Your task to perform on an android device: turn on airplane mode Image 0: 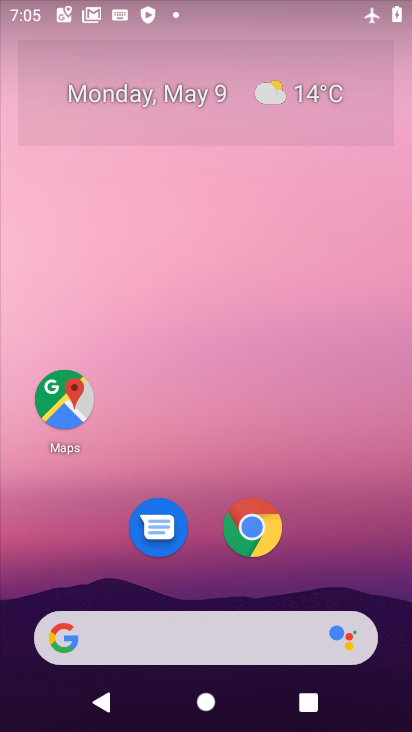
Step 0: drag from (354, 523) to (247, 42)
Your task to perform on an android device: turn on airplane mode Image 1: 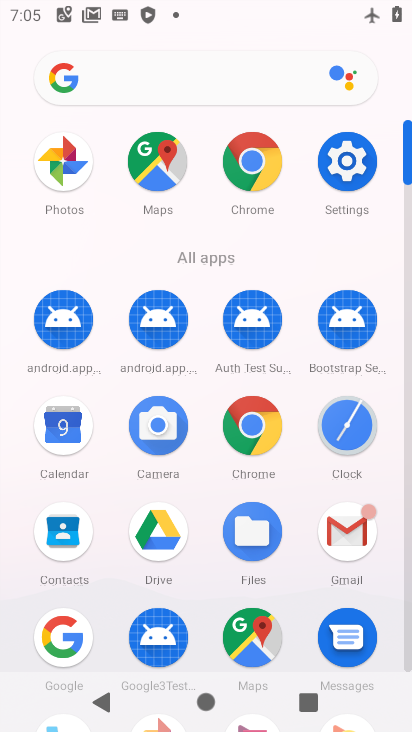
Step 1: click (348, 161)
Your task to perform on an android device: turn on airplane mode Image 2: 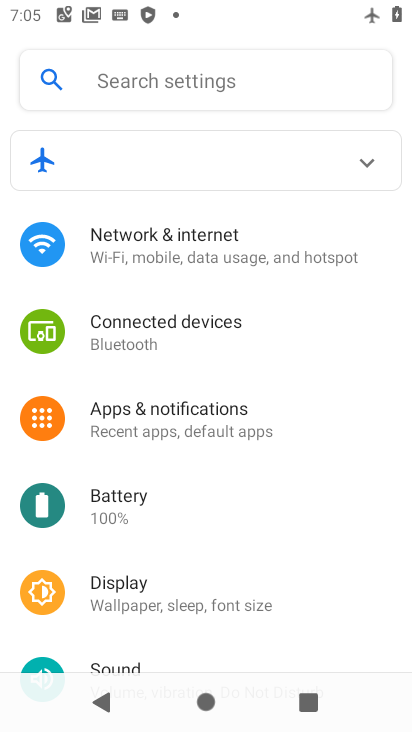
Step 2: click (132, 243)
Your task to perform on an android device: turn on airplane mode Image 3: 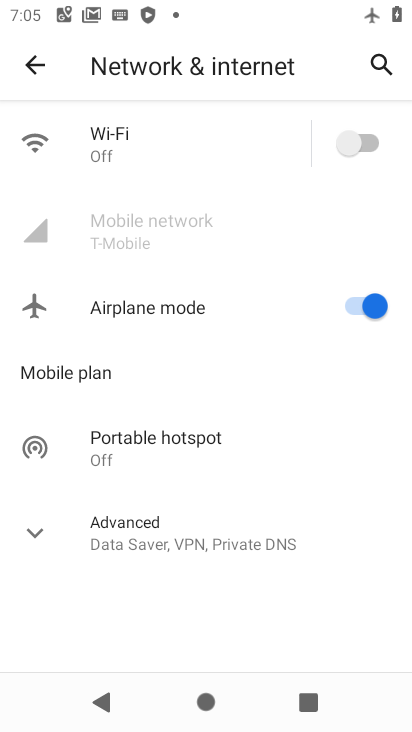
Step 3: task complete